Your task to perform on an android device: install app "Roku - Official Remote Control" Image 0: 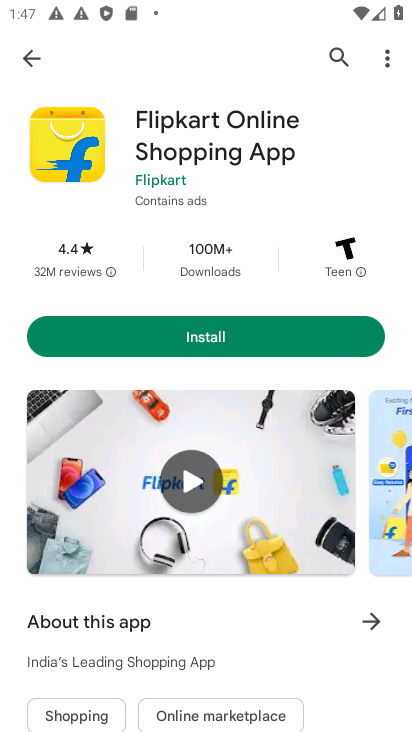
Step 0: click (34, 51)
Your task to perform on an android device: install app "Roku - Official Remote Control" Image 1: 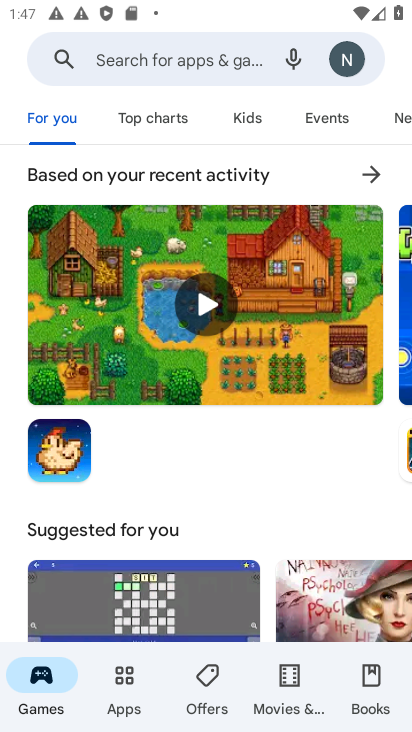
Step 1: click (206, 57)
Your task to perform on an android device: install app "Roku - Official Remote Control" Image 2: 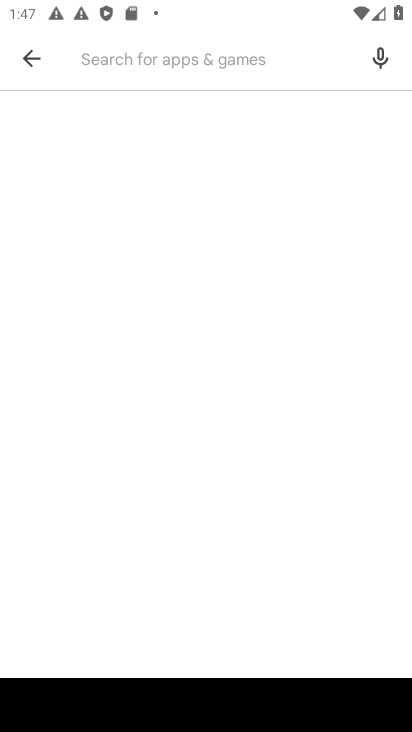
Step 2: type "roku official remotr"
Your task to perform on an android device: install app "Roku - Official Remote Control" Image 3: 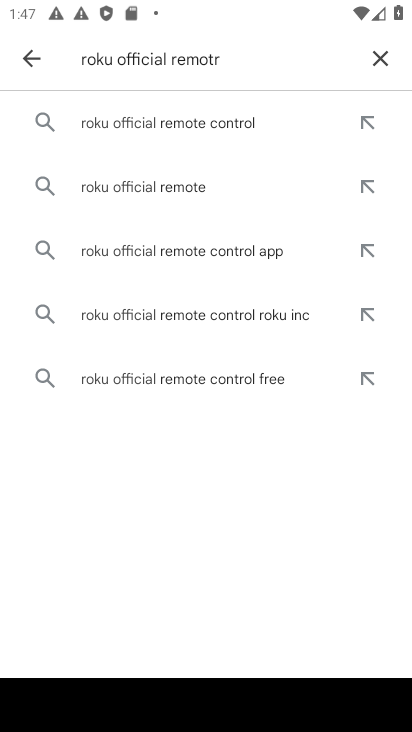
Step 3: click (130, 116)
Your task to perform on an android device: install app "Roku - Official Remote Control" Image 4: 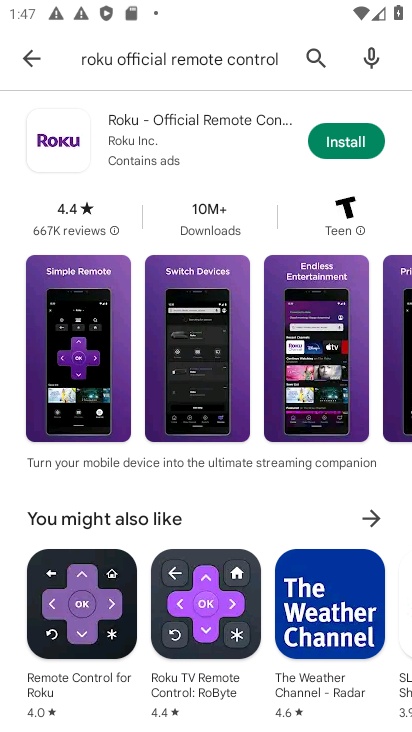
Step 4: click (360, 140)
Your task to perform on an android device: install app "Roku - Official Remote Control" Image 5: 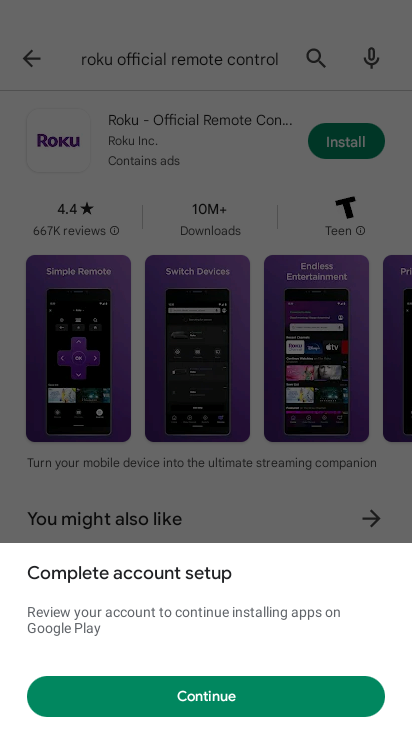
Step 5: click (194, 705)
Your task to perform on an android device: install app "Roku - Official Remote Control" Image 6: 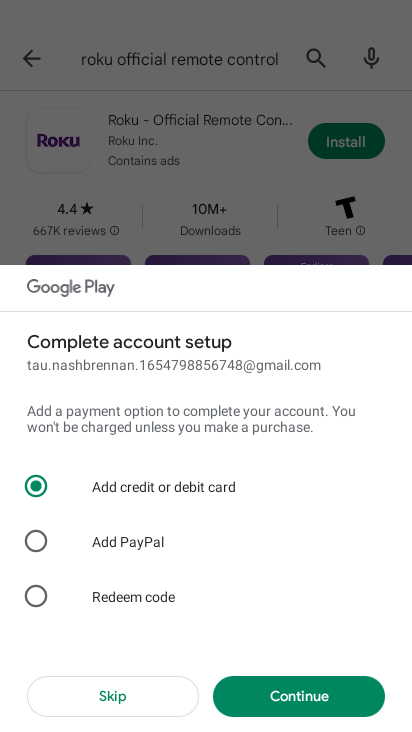
Step 6: click (103, 706)
Your task to perform on an android device: install app "Roku - Official Remote Control" Image 7: 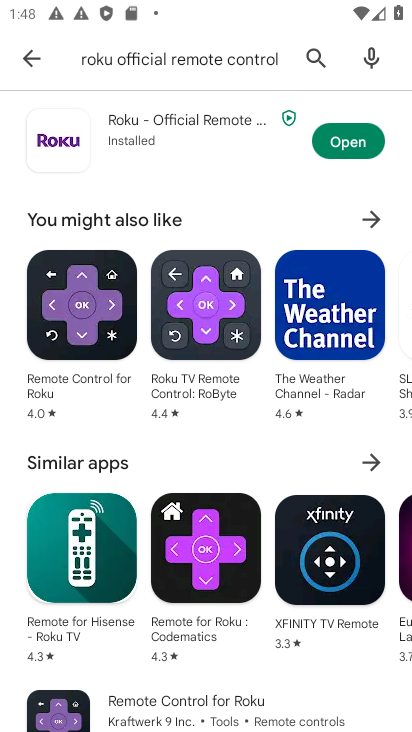
Step 7: task complete